Your task to perform on an android device: Go to settings Image 0: 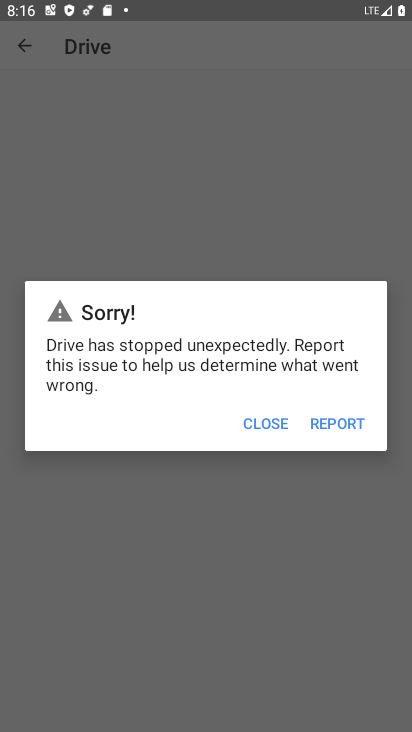
Step 0: press home button
Your task to perform on an android device: Go to settings Image 1: 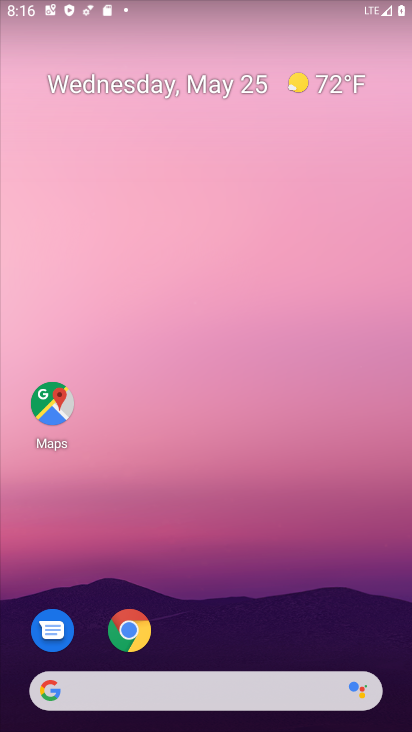
Step 1: drag from (196, 648) to (202, 199)
Your task to perform on an android device: Go to settings Image 2: 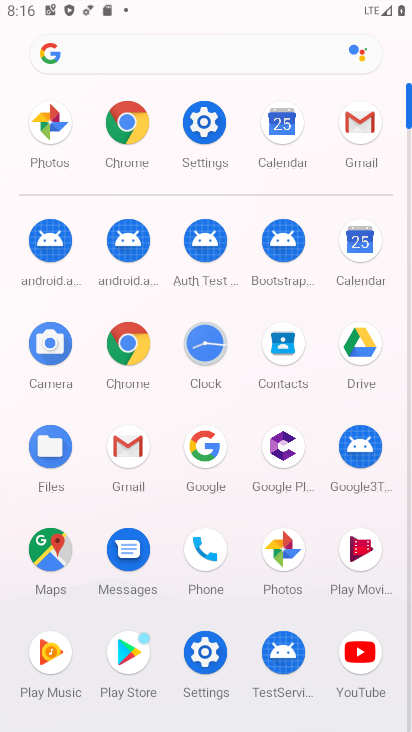
Step 2: click (218, 127)
Your task to perform on an android device: Go to settings Image 3: 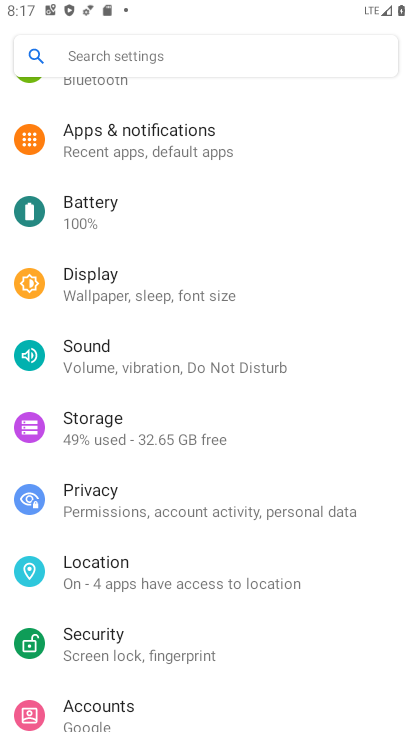
Step 3: task complete